Your task to perform on an android device: turn off notifications in google photos Image 0: 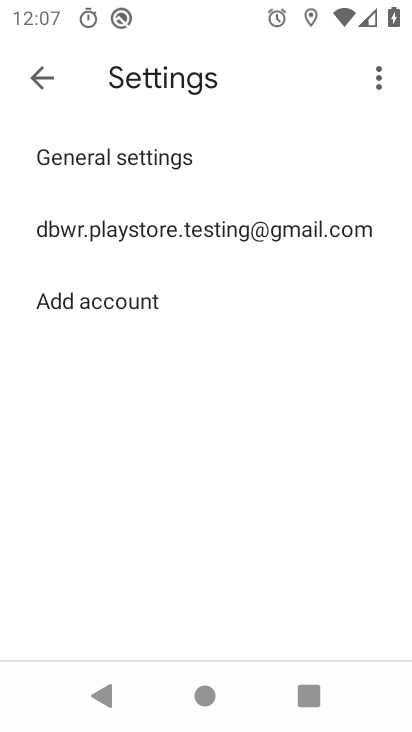
Step 0: press home button
Your task to perform on an android device: turn off notifications in google photos Image 1: 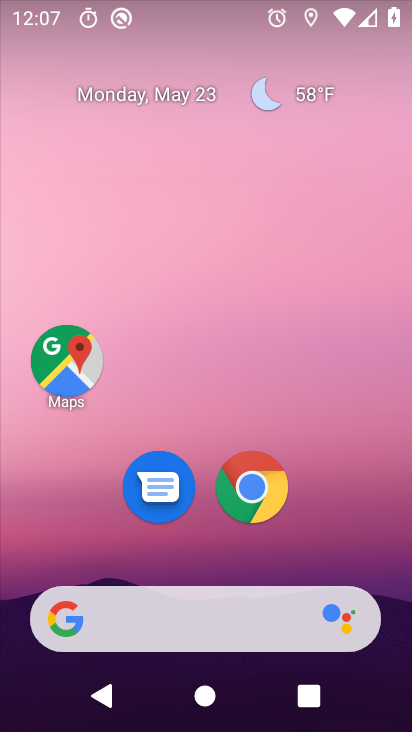
Step 1: click (330, 185)
Your task to perform on an android device: turn off notifications in google photos Image 2: 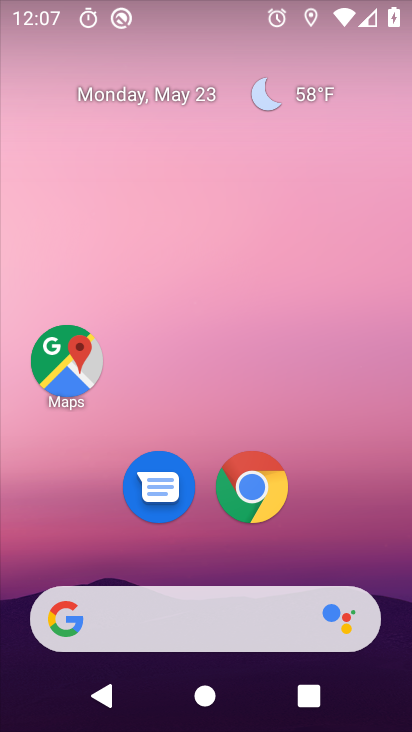
Step 2: drag from (338, 522) to (337, 169)
Your task to perform on an android device: turn off notifications in google photos Image 3: 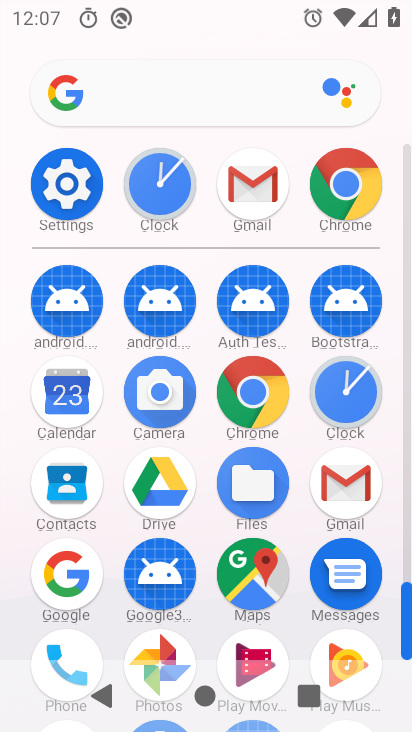
Step 3: drag from (193, 612) to (189, 411)
Your task to perform on an android device: turn off notifications in google photos Image 4: 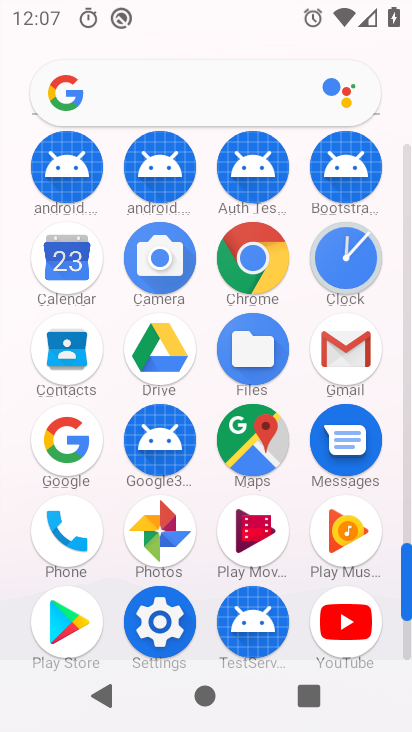
Step 4: click (177, 518)
Your task to perform on an android device: turn off notifications in google photos Image 5: 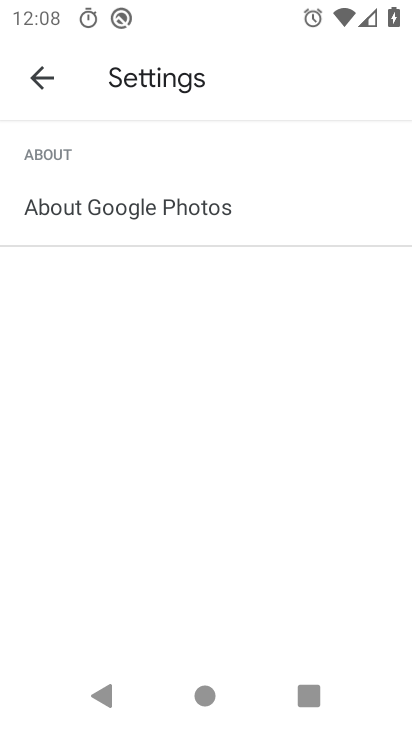
Step 5: click (28, 80)
Your task to perform on an android device: turn off notifications in google photos Image 6: 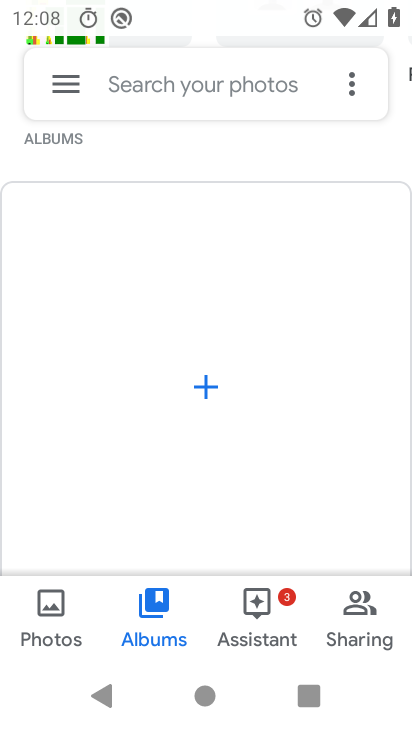
Step 6: click (42, 85)
Your task to perform on an android device: turn off notifications in google photos Image 7: 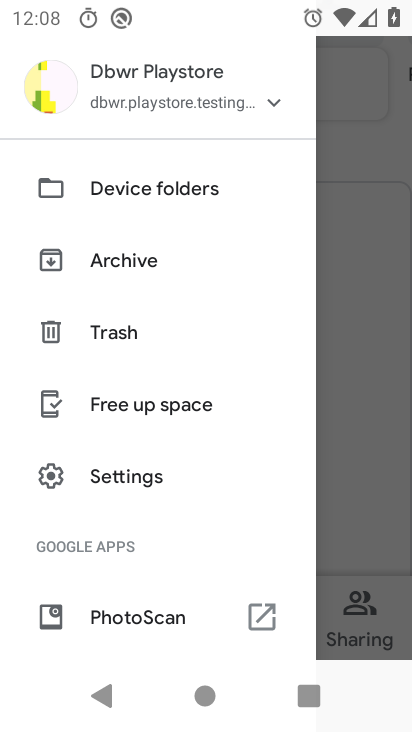
Step 7: click (135, 489)
Your task to perform on an android device: turn off notifications in google photos Image 8: 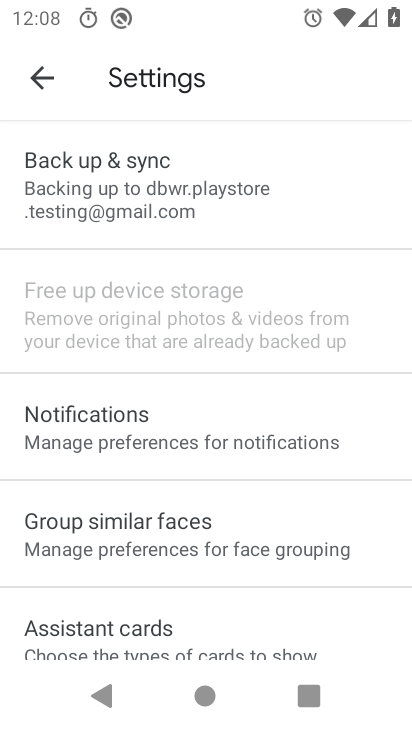
Step 8: click (177, 440)
Your task to perform on an android device: turn off notifications in google photos Image 9: 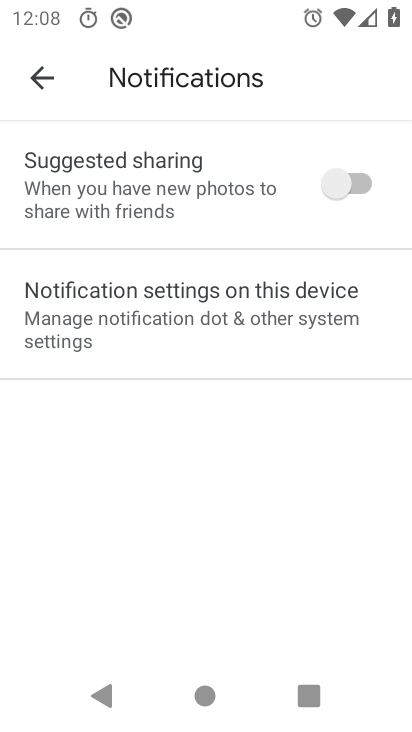
Step 9: click (171, 335)
Your task to perform on an android device: turn off notifications in google photos Image 10: 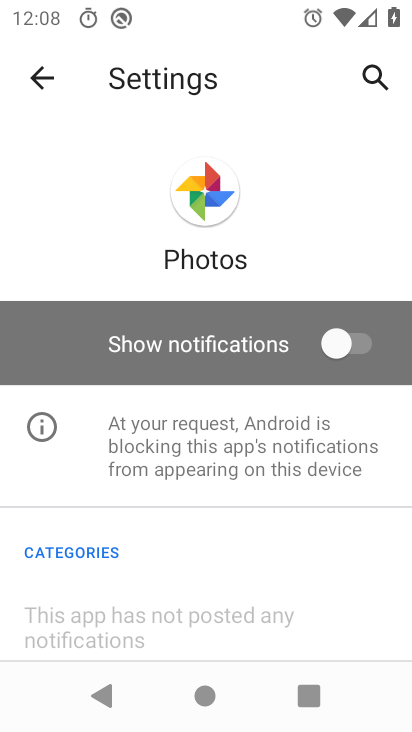
Step 10: task complete